Your task to perform on an android device: open chrome privacy settings Image 0: 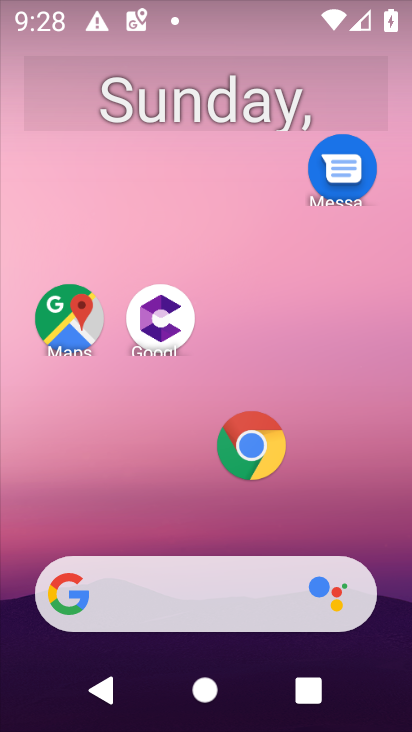
Step 0: drag from (130, 507) to (211, 137)
Your task to perform on an android device: open chrome privacy settings Image 1: 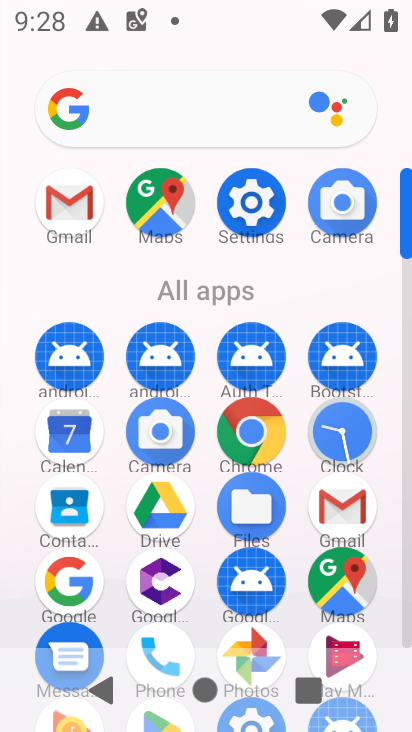
Step 1: click (244, 201)
Your task to perform on an android device: open chrome privacy settings Image 2: 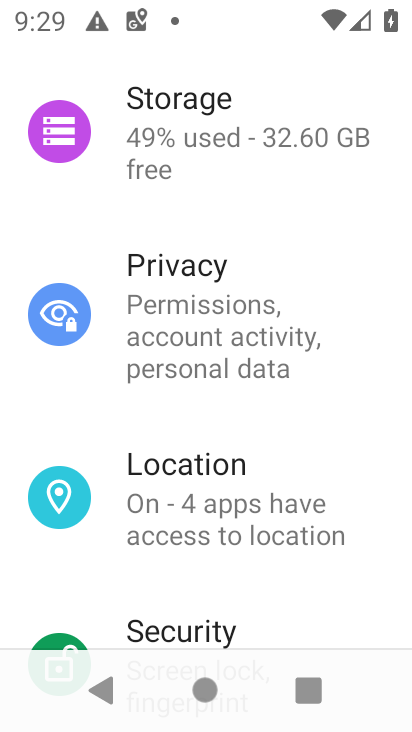
Step 2: click (175, 284)
Your task to perform on an android device: open chrome privacy settings Image 3: 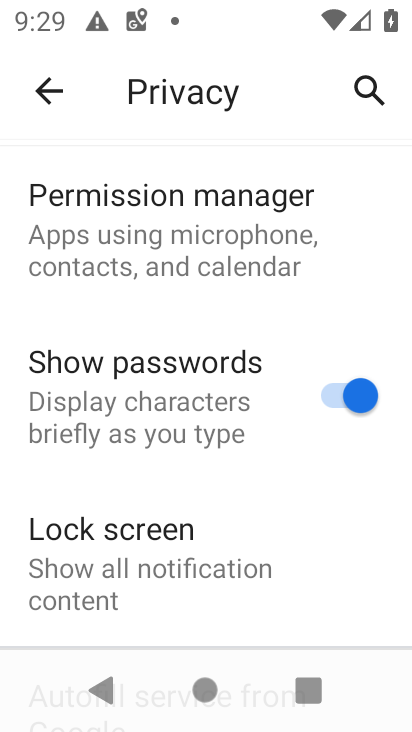
Step 3: task complete